Your task to perform on an android device: Go to privacy settings Image 0: 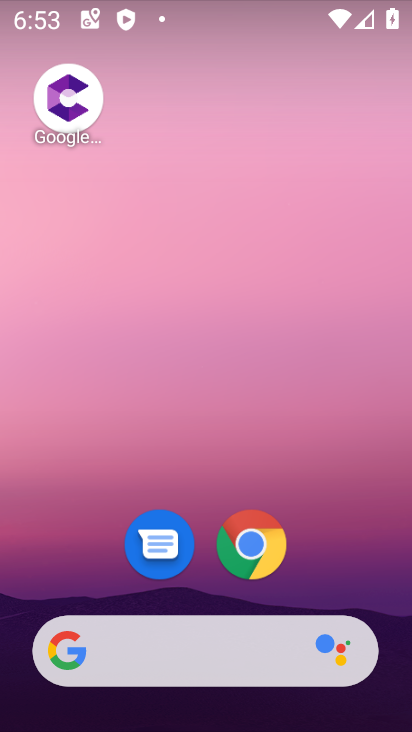
Step 0: press home button
Your task to perform on an android device: Go to privacy settings Image 1: 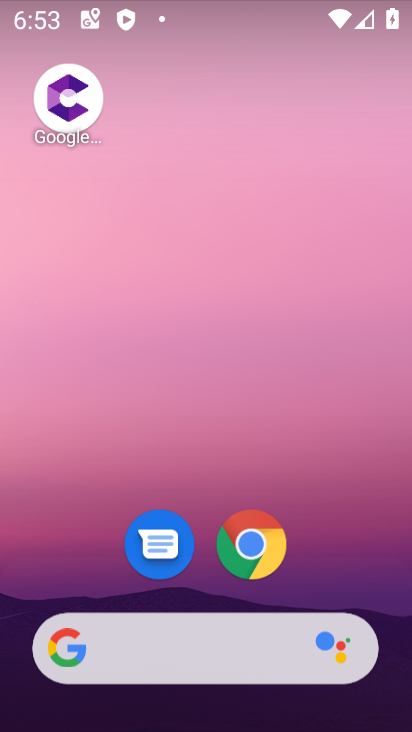
Step 1: drag from (66, 486) to (229, 10)
Your task to perform on an android device: Go to privacy settings Image 2: 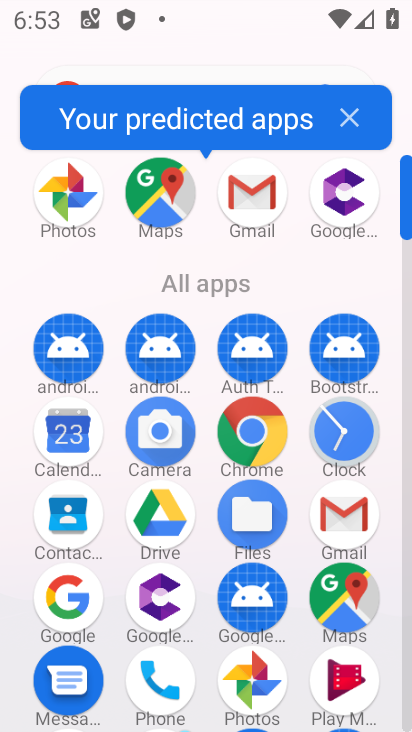
Step 2: drag from (196, 638) to (195, 222)
Your task to perform on an android device: Go to privacy settings Image 3: 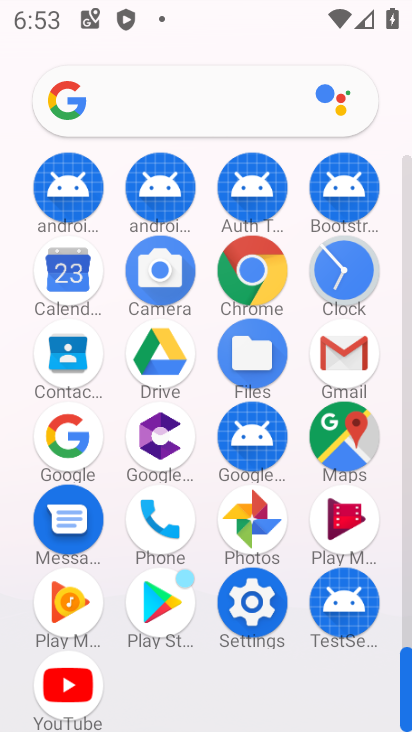
Step 3: click (247, 602)
Your task to perform on an android device: Go to privacy settings Image 4: 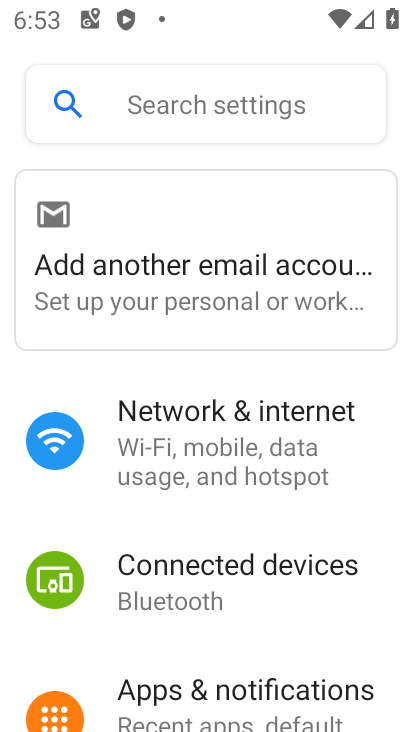
Step 4: drag from (202, 650) to (201, 213)
Your task to perform on an android device: Go to privacy settings Image 5: 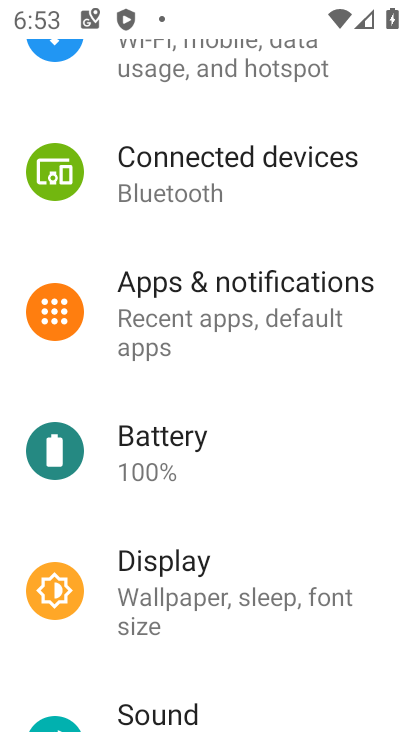
Step 5: drag from (198, 643) to (208, 246)
Your task to perform on an android device: Go to privacy settings Image 6: 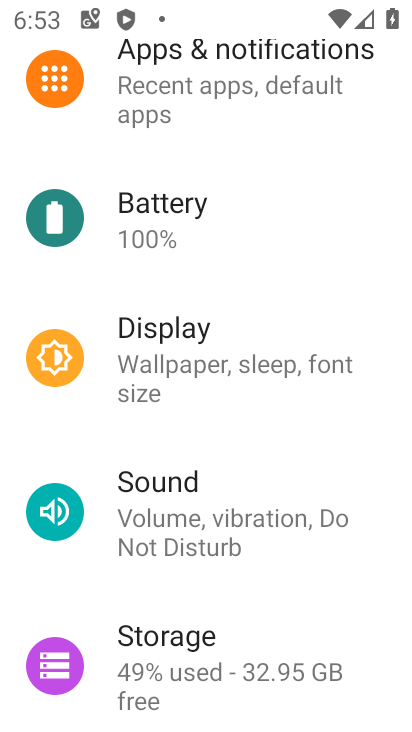
Step 6: drag from (192, 569) to (217, 149)
Your task to perform on an android device: Go to privacy settings Image 7: 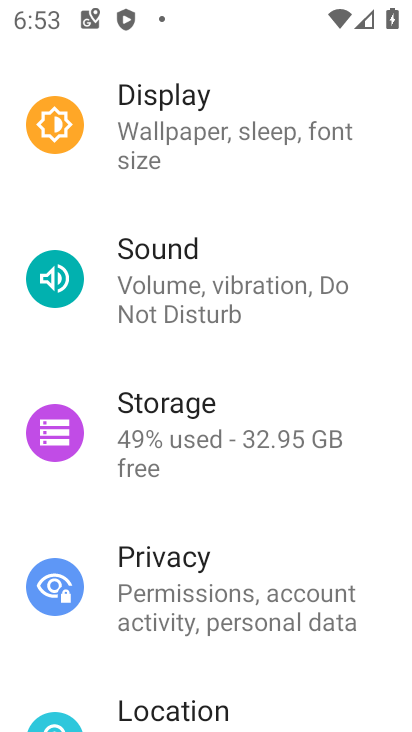
Step 7: click (166, 577)
Your task to perform on an android device: Go to privacy settings Image 8: 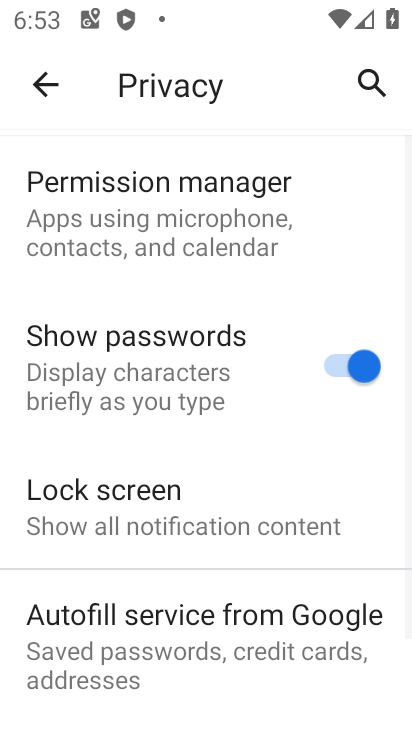
Step 8: task complete